Your task to perform on an android device: toggle location history Image 0: 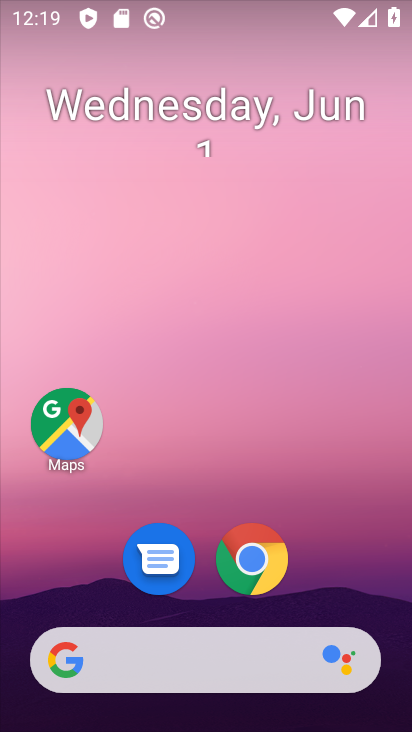
Step 0: drag from (327, 591) to (349, 191)
Your task to perform on an android device: toggle location history Image 1: 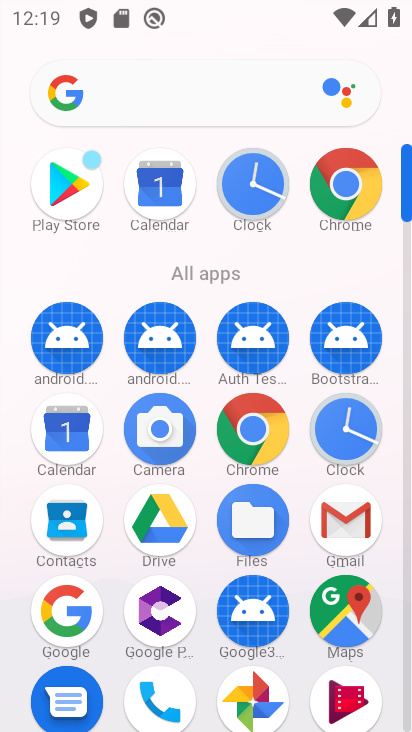
Step 1: drag from (212, 537) to (228, 360)
Your task to perform on an android device: toggle location history Image 2: 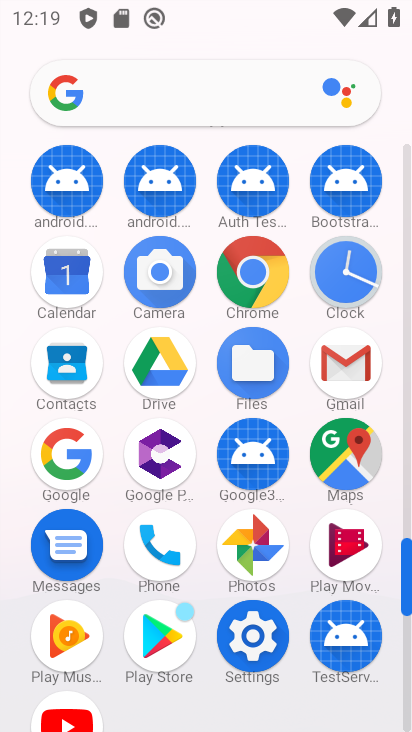
Step 2: click (242, 643)
Your task to perform on an android device: toggle location history Image 3: 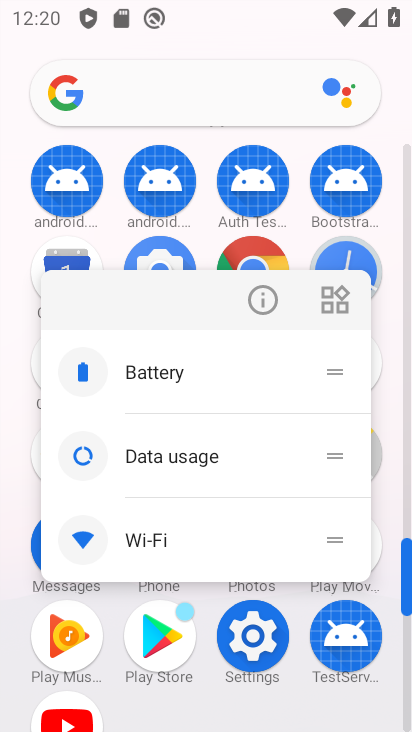
Step 3: click (234, 635)
Your task to perform on an android device: toggle location history Image 4: 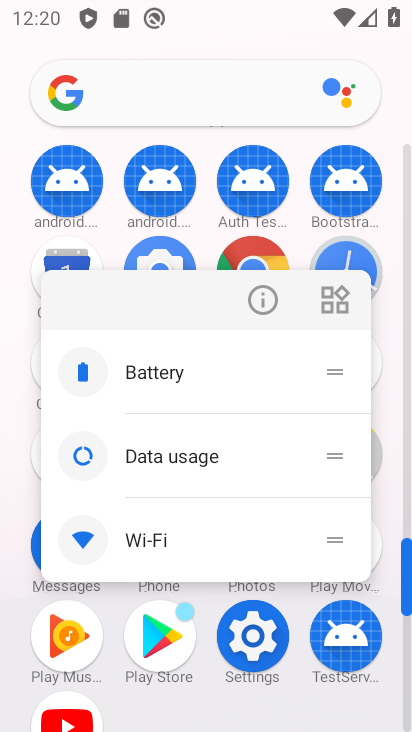
Step 4: click (239, 638)
Your task to perform on an android device: toggle location history Image 5: 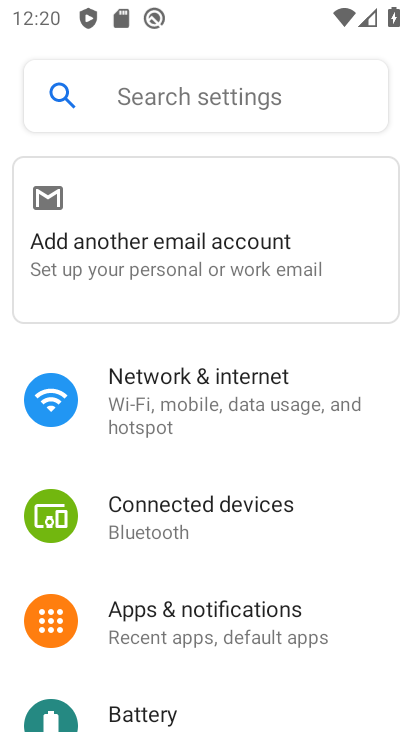
Step 5: drag from (180, 578) to (205, 454)
Your task to perform on an android device: toggle location history Image 6: 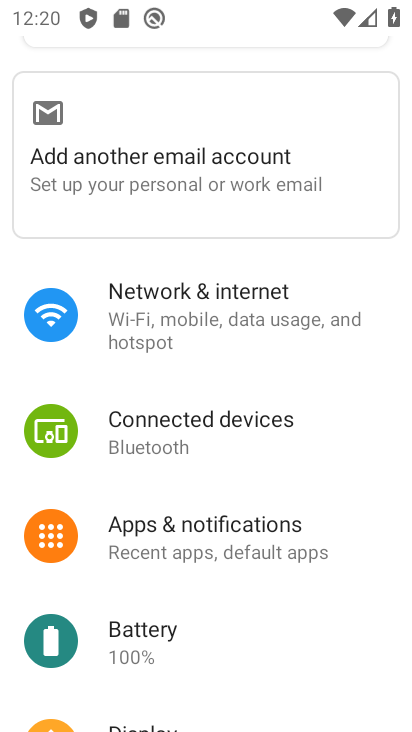
Step 6: drag from (179, 565) to (233, 242)
Your task to perform on an android device: toggle location history Image 7: 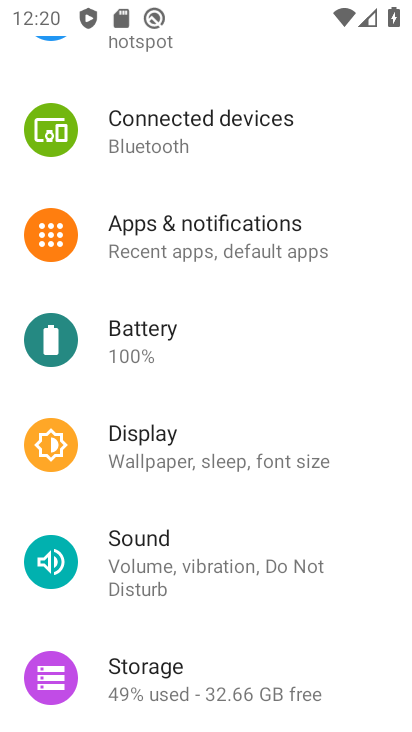
Step 7: drag from (172, 588) to (255, 279)
Your task to perform on an android device: toggle location history Image 8: 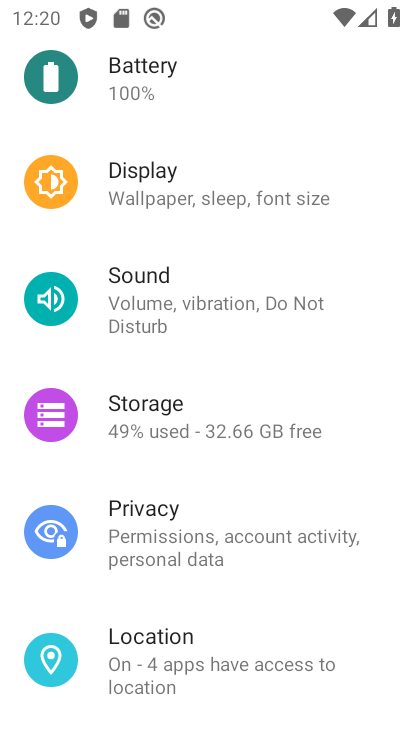
Step 8: click (163, 637)
Your task to perform on an android device: toggle location history Image 9: 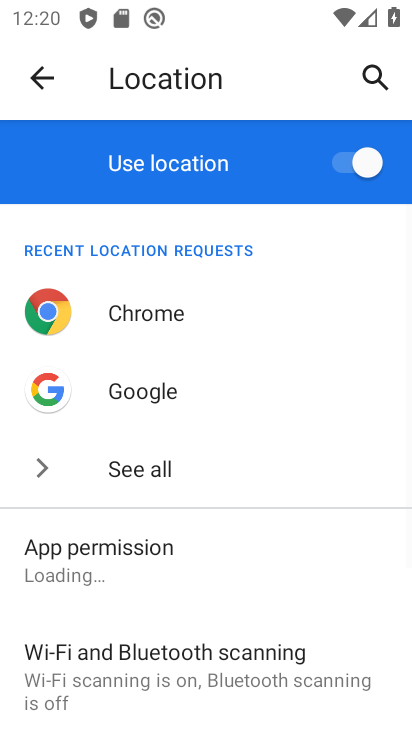
Step 9: drag from (158, 553) to (213, 324)
Your task to perform on an android device: toggle location history Image 10: 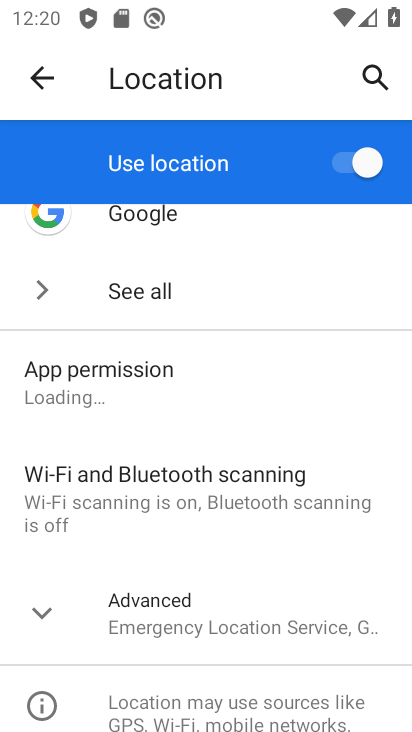
Step 10: click (188, 618)
Your task to perform on an android device: toggle location history Image 11: 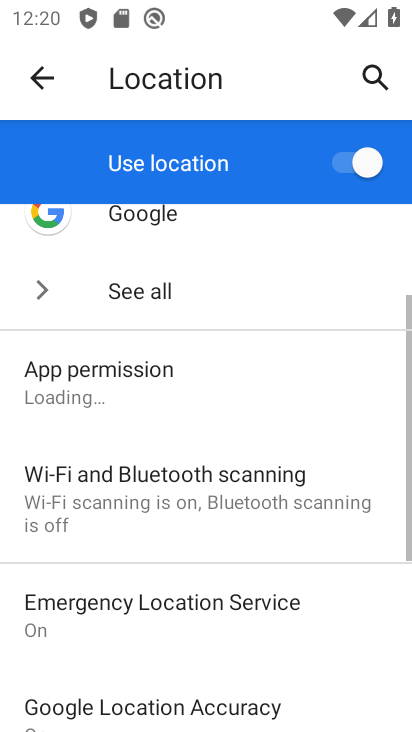
Step 11: drag from (186, 644) to (242, 343)
Your task to perform on an android device: toggle location history Image 12: 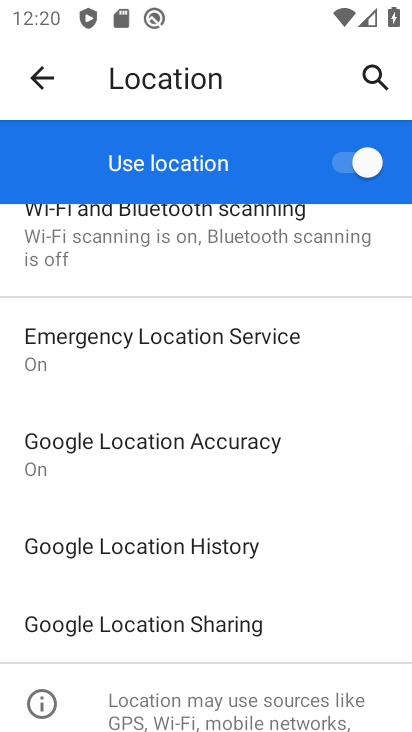
Step 12: drag from (169, 586) to (212, 426)
Your task to perform on an android device: toggle location history Image 13: 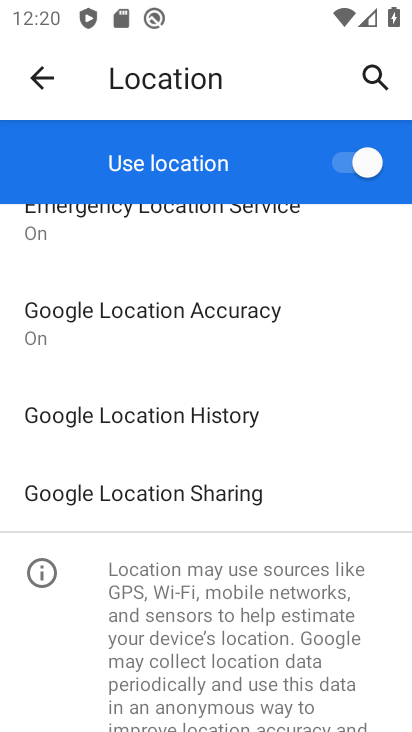
Step 13: click (142, 404)
Your task to perform on an android device: toggle location history Image 14: 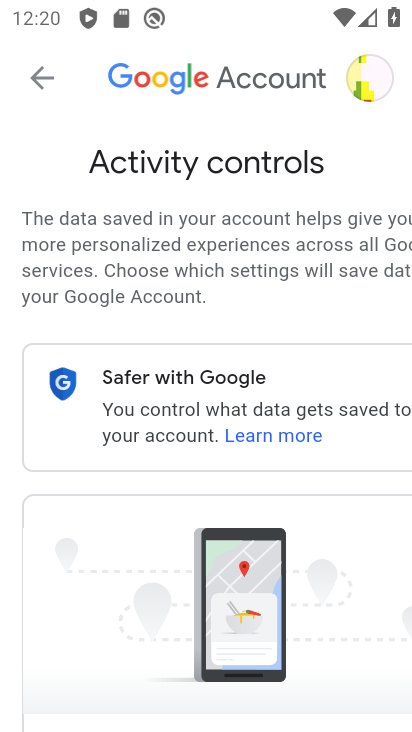
Step 14: drag from (307, 639) to (330, 216)
Your task to perform on an android device: toggle location history Image 15: 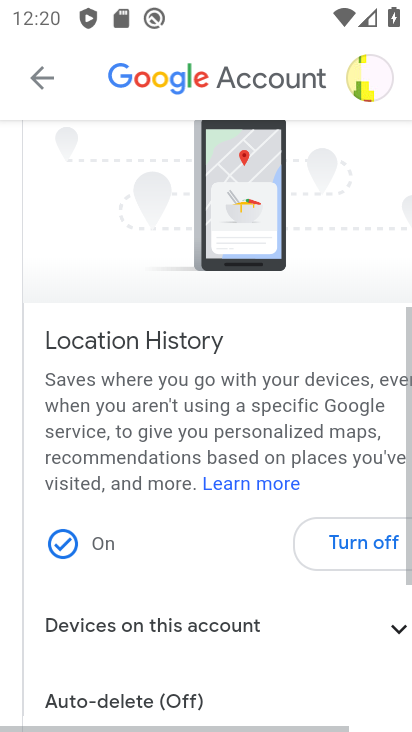
Step 15: drag from (309, 611) to (329, 454)
Your task to perform on an android device: toggle location history Image 16: 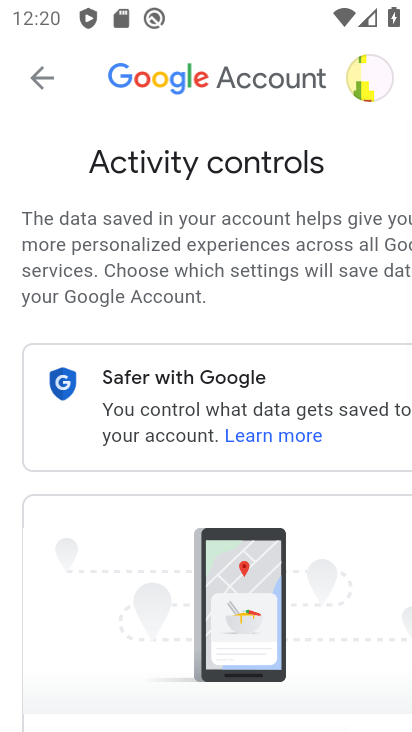
Step 16: click (347, 424)
Your task to perform on an android device: toggle location history Image 17: 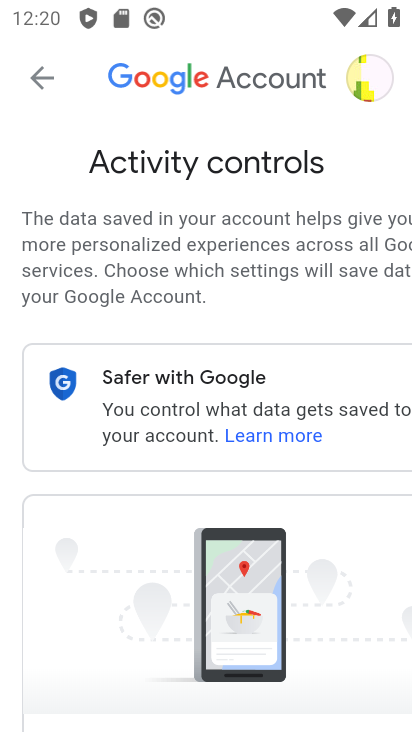
Step 17: drag from (313, 615) to (317, 347)
Your task to perform on an android device: toggle location history Image 18: 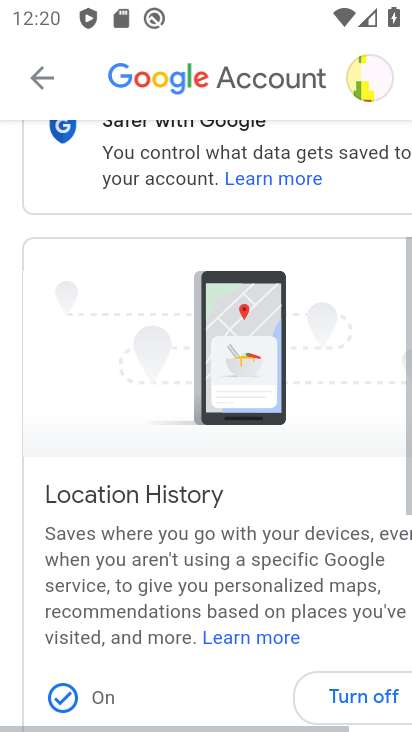
Step 18: drag from (313, 575) to (336, 312)
Your task to perform on an android device: toggle location history Image 19: 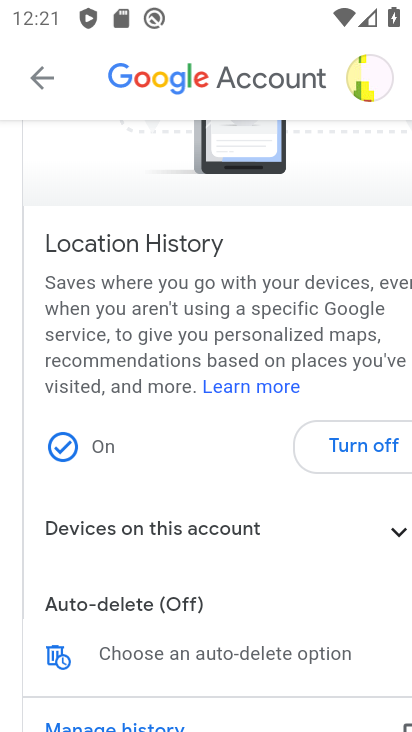
Step 19: click (322, 429)
Your task to perform on an android device: toggle location history Image 20: 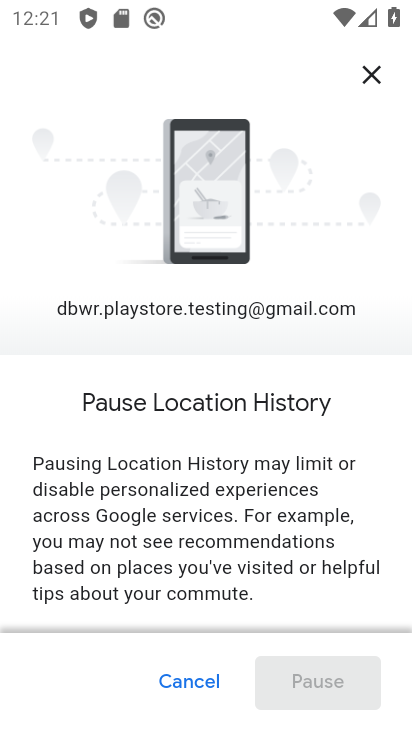
Step 20: task complete